Your task to perform on an android device: Check the weather Image 0: 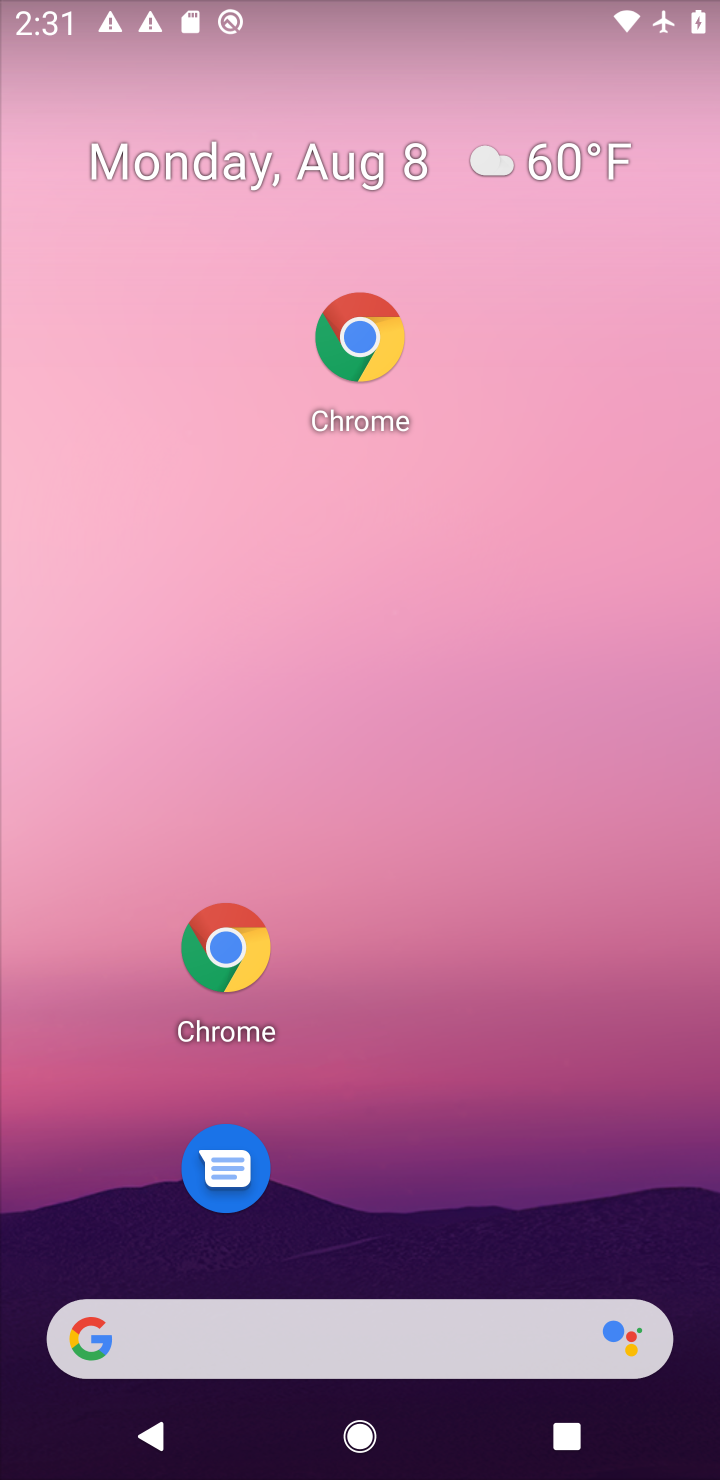
Step 0: drag from (392, 1267) to (484, 255)
Your task to perform on an android device: Check the weather Image 1: 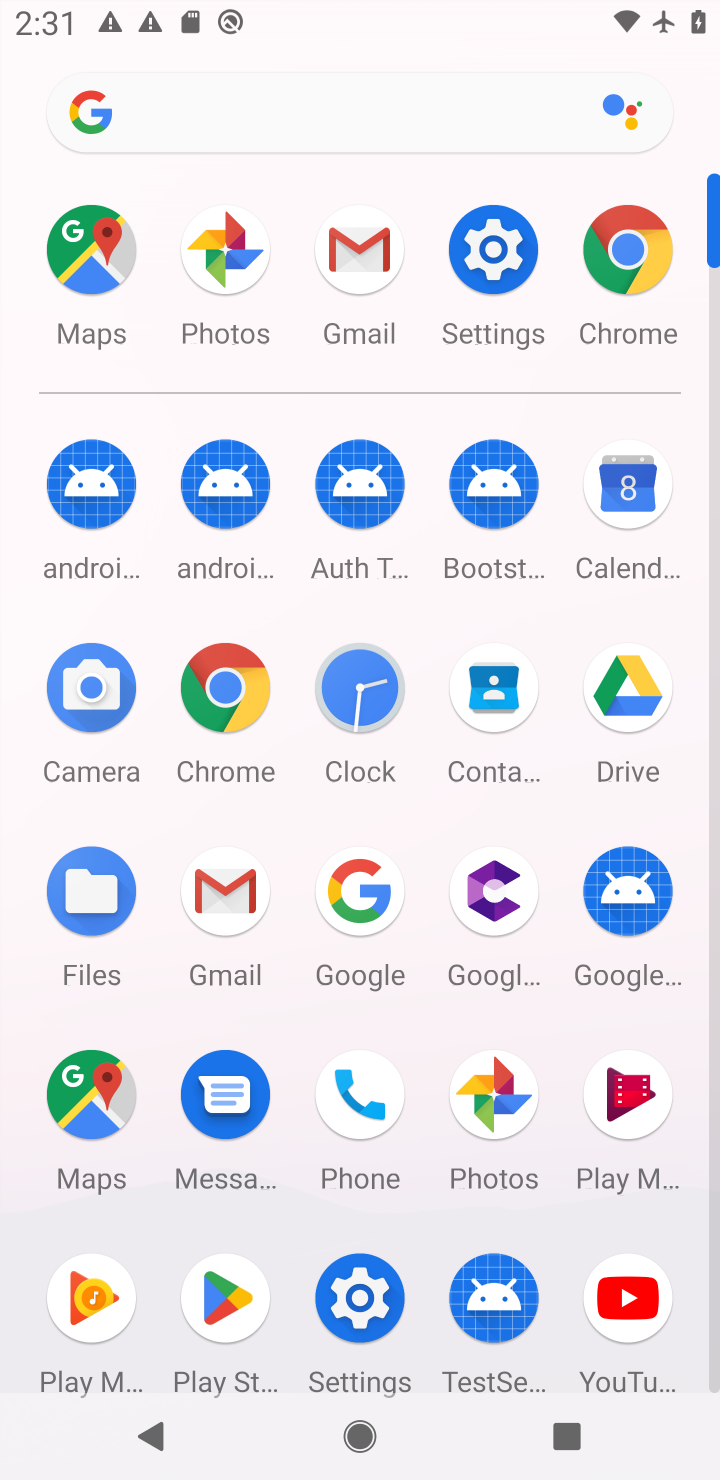
Step 1: click (399, 133)
Your task to perform on an android device: Check the weather Image 2: 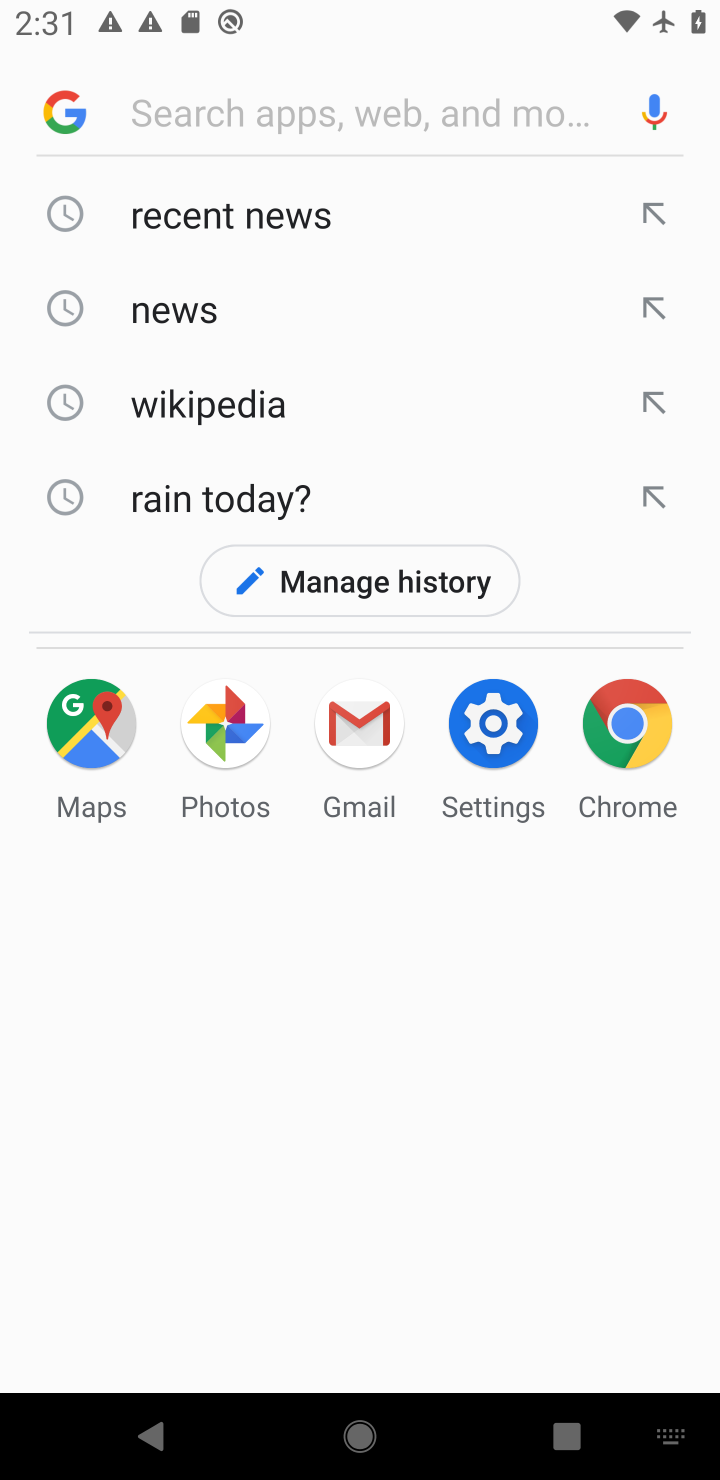
Step 2: type "weather"
Your task to perform on an android device: Check the weather Image 3: 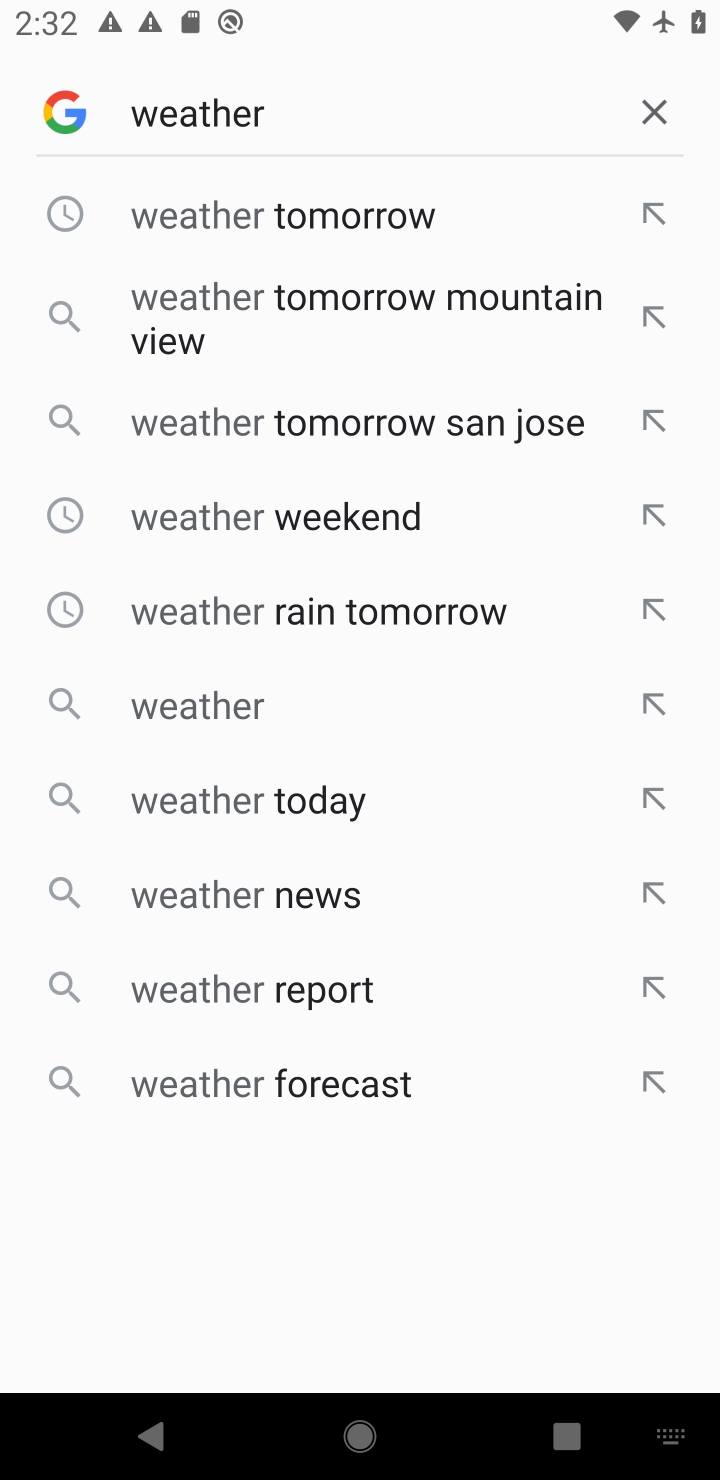
Step 3: click (326, 220)
Your task to perform on an android device: Check the weather Image 4: 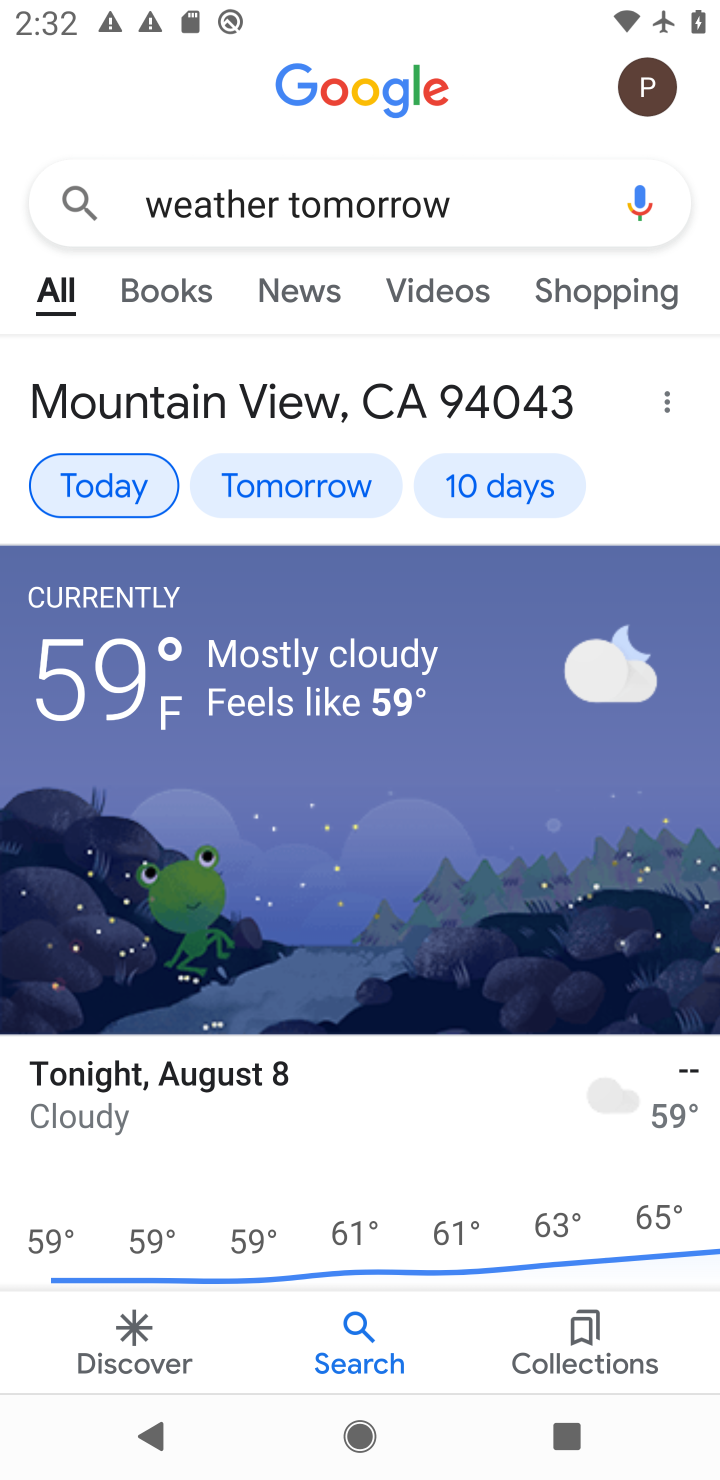
Step 4: task complete